Your task to perform on an android device: move an email to a new category in the gmail app Image 0: 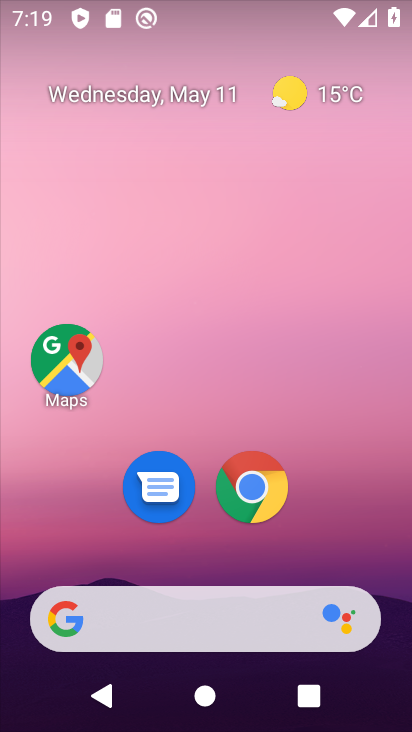
Step 0: drag from (243, 661) to (181, 188)
Your task to perform on an android device: move an email to a new category in the gmail app Image 1: 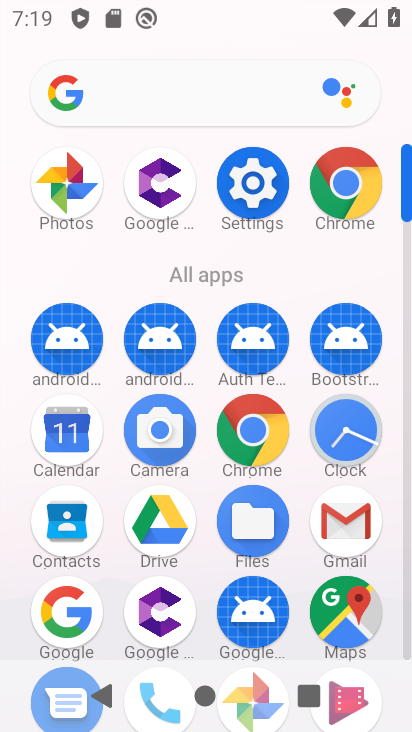
Step 1: click (357, 522)
Your task to perform on an android device: move an email to a new category in the gmail app Image 2: 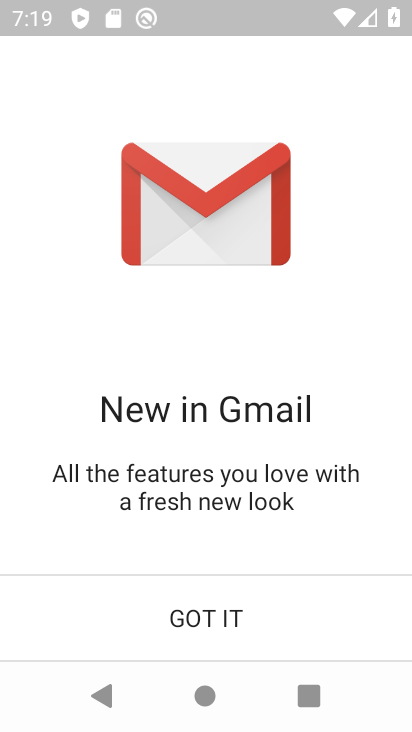
Step 2: click (255, 627)
Your task to perform on an android device: move an email to a new category in the gmail app Image 3: 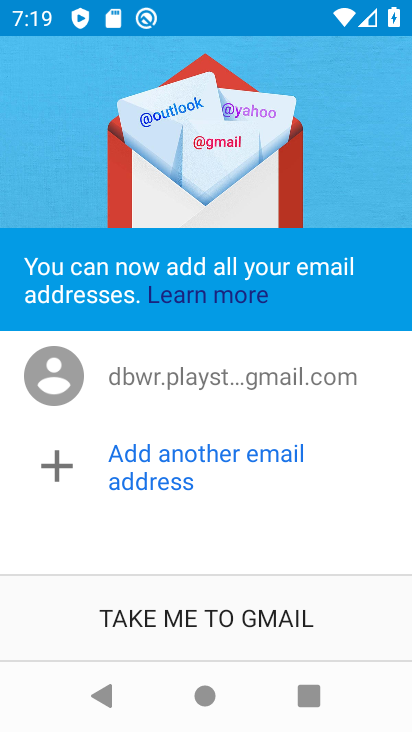
Step 3: click (199, 633)
Your task to perform on an android device: move an email to a new category in the gmail app Image 4: 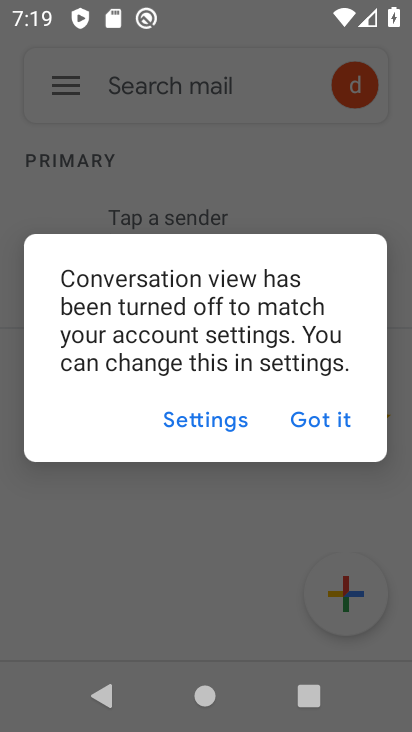
Step 4: click (303, 419)
Your task to perform on an android device: move an email to a new category in the gmail app Image 5: 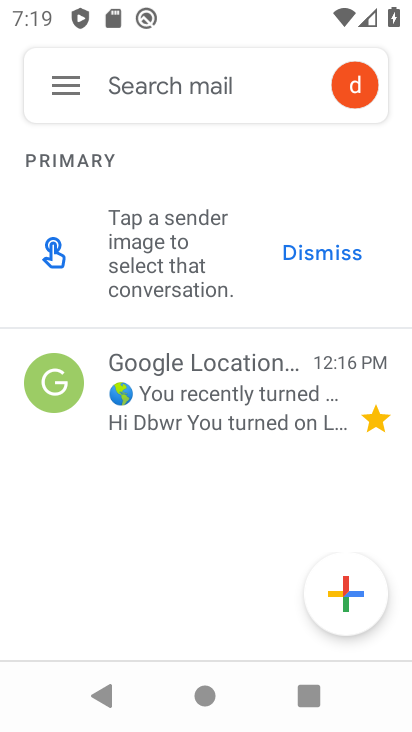
Step 5: click (59, 82)
Your task to perform on an android device: move an email to a new category in the gmail app Image 6: 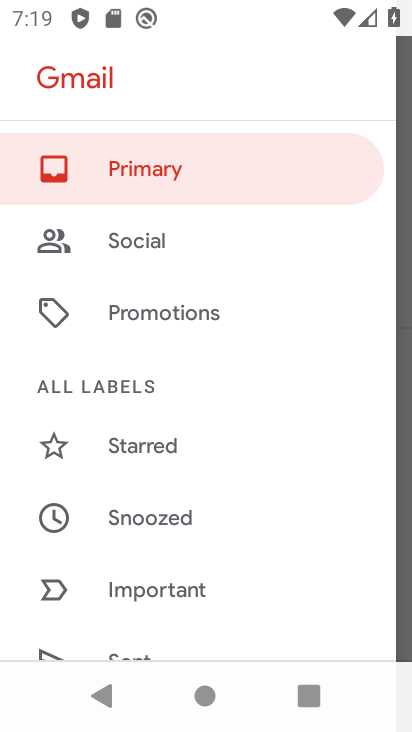
Step 6: drag from (196, 507) to (217, 243)
Your task to perform on an android device: move an email to a new category in the gmail app Image 7: 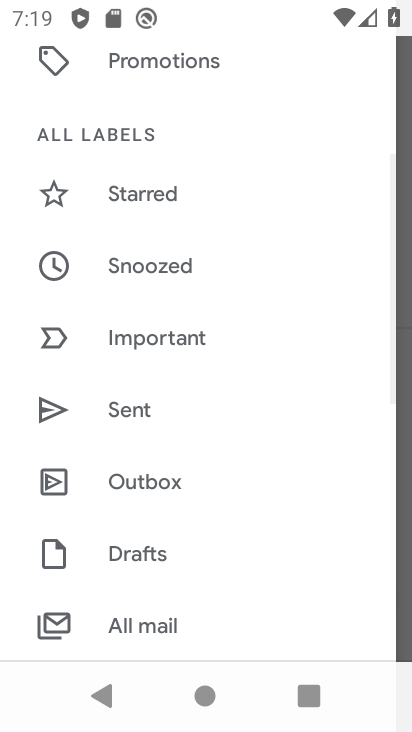
Step 7: drag from (246, 576) to (226, 98)
Your task to perform on an android device: move an email to a new category in the gmail app Image 8: 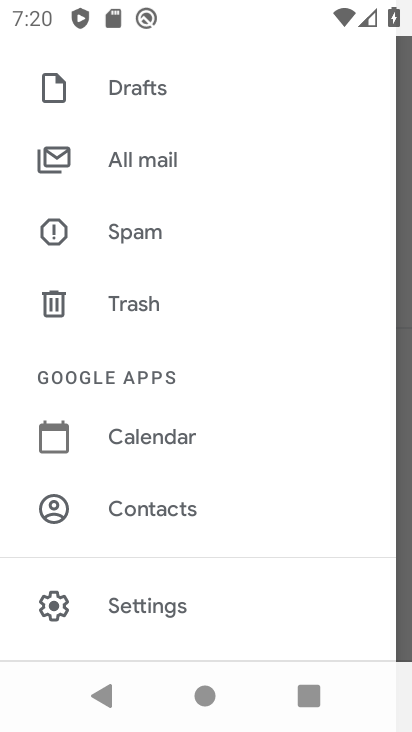
Step 8: click (179, 601)
Your task to perform on an android device: move an email to a new category in the gmail app Image 9: 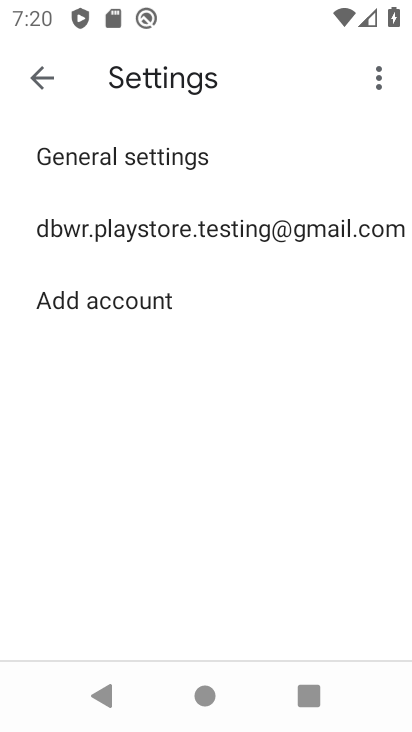
Step 9: click (137, 237)
Your task to perform on an android device: move an email to a new category in the gmail app Image 10: 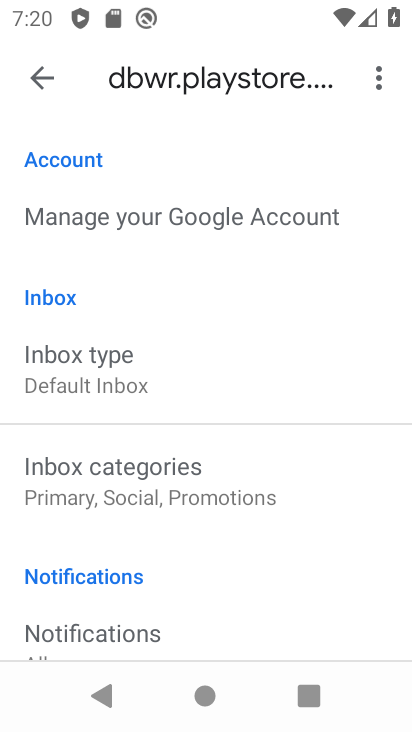
Step 10: click (133, 499)
Your task to perform on an android device: move an email to a new category in the gmail app Image 11: 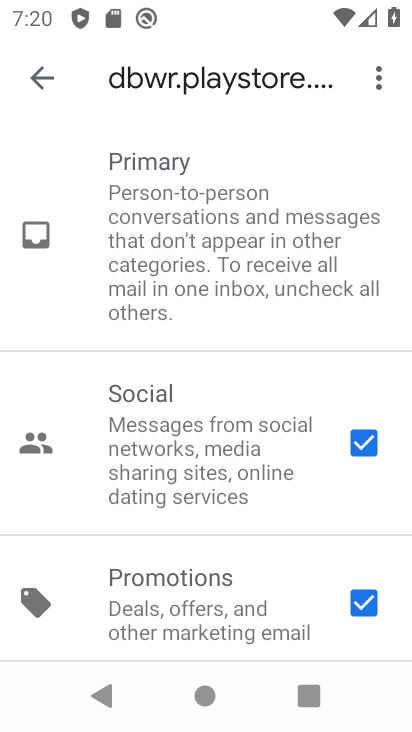
Step 11: click (358, 450)
Your task to perform on an android device: move an email to a new category in the gmail app Image 12: 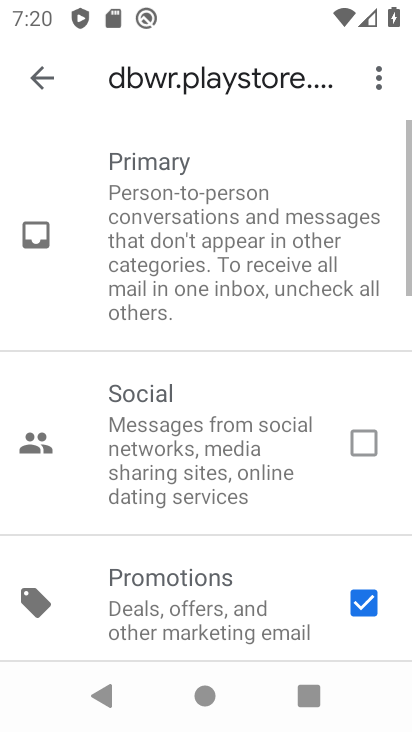
Step 12: click (367, 604)
Your task to perform on an android device: move an email to a new category in the gmail app Image 13: 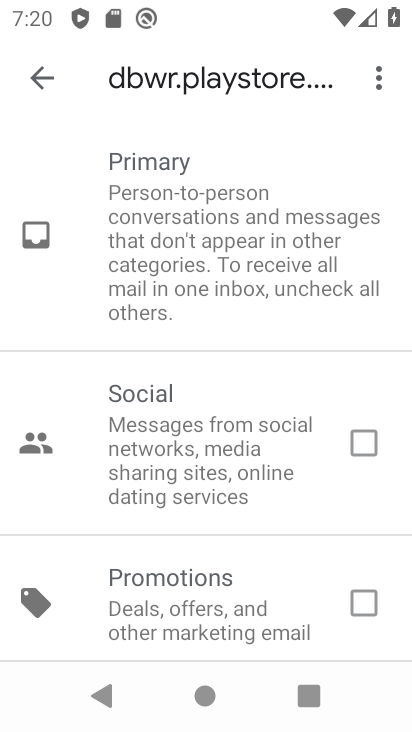
Step 13: task complete